Your task to perform on an android device: Open battery settings Image 0: 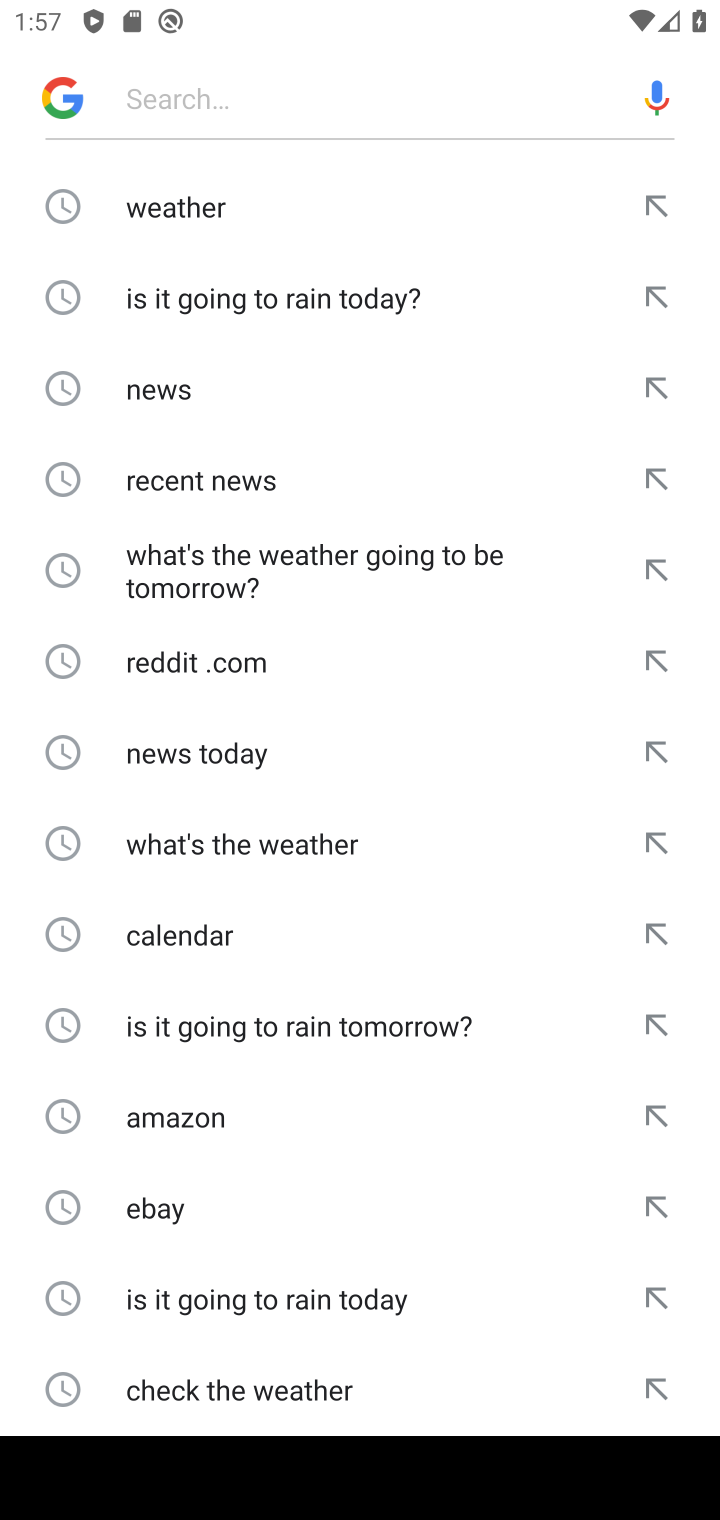
Step 0: press back button
Your task to perform on an android device: Open battery settings Image 1: 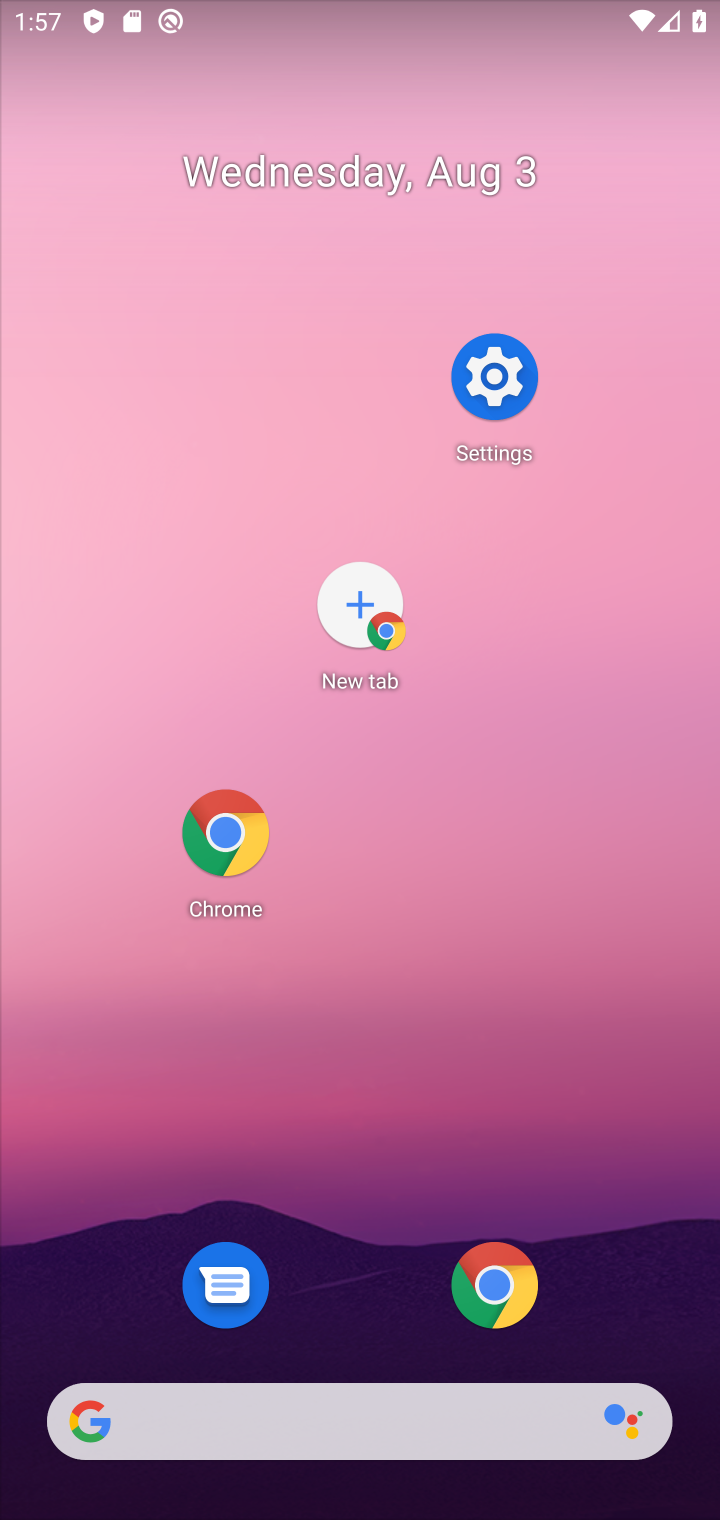
Step 1: drag from (265, 294) to (323, 137)
Your task to perform on an android device: Open battery settings Image 2: 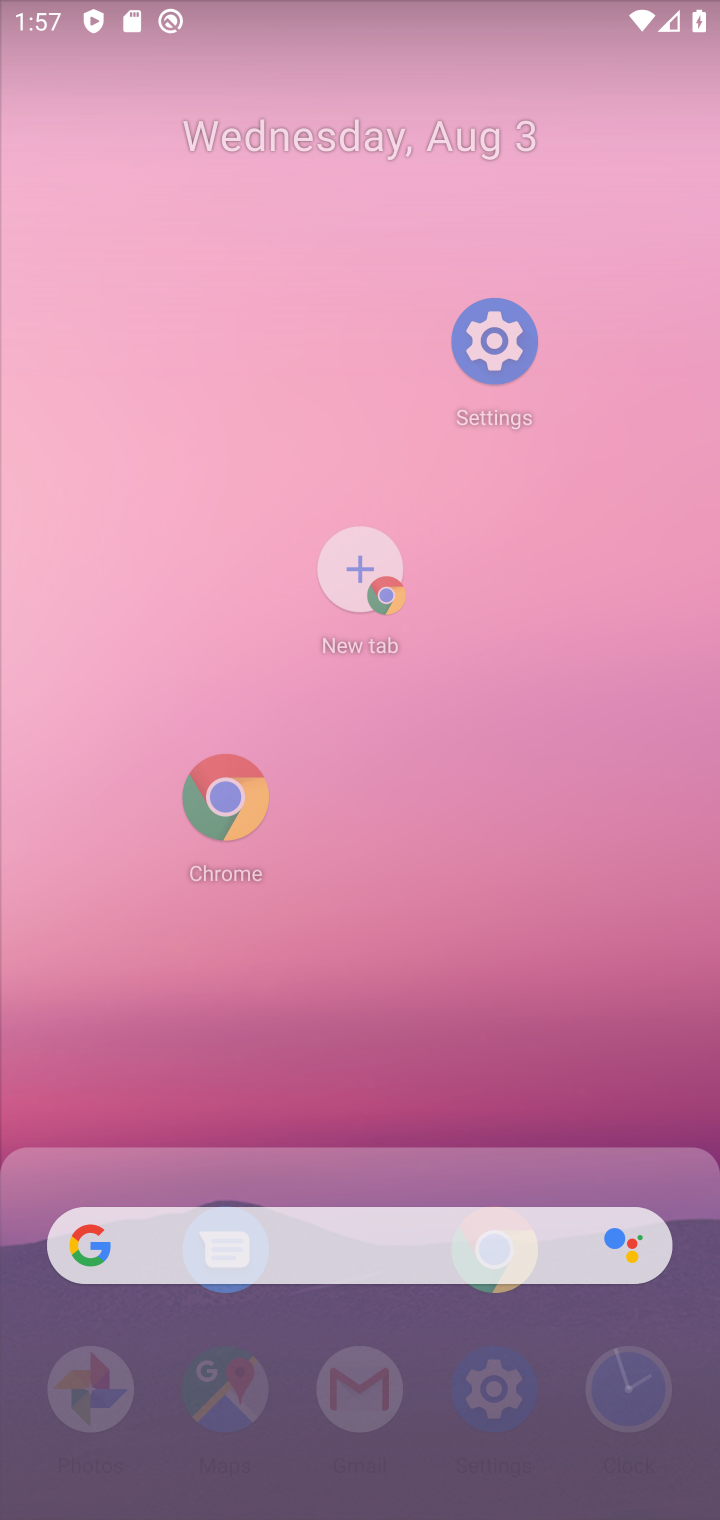
Step 2: drag from (221, 44) to (295, 19)
Your task to perform on an android device: Open battery settings Image 3: 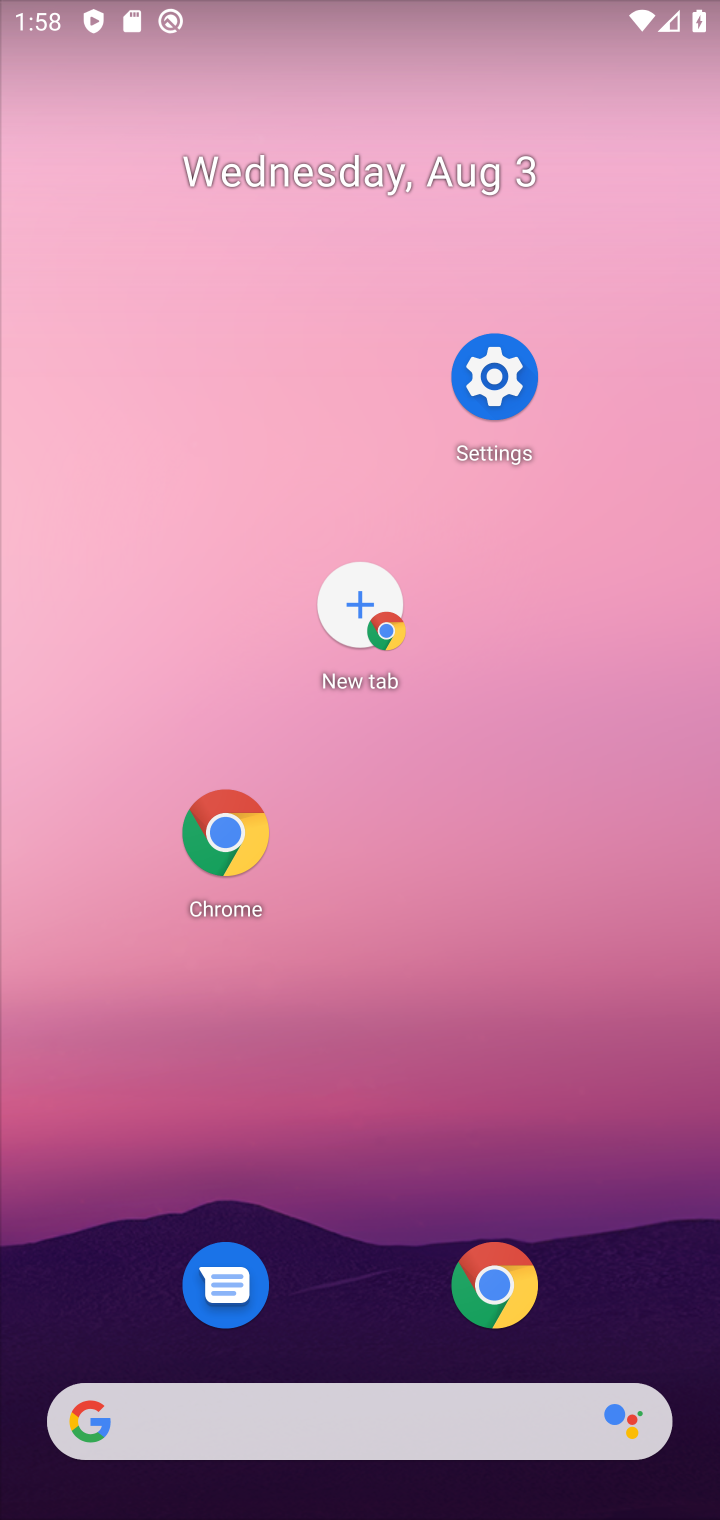
Step 3: drag from (357, 161) to (187, 265)
Your task to perform on an android device: Open battery settings Image 4: 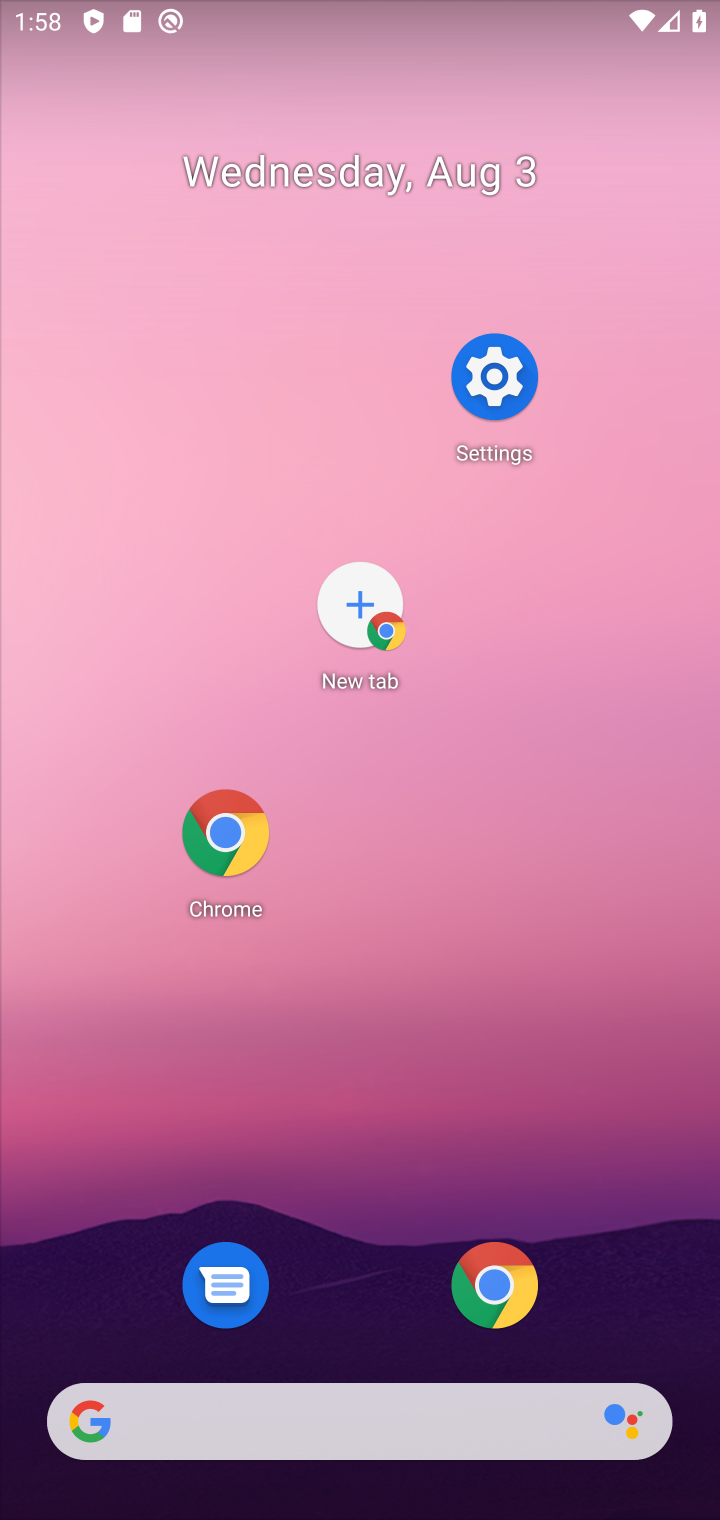
Step 4: drag from (263, 383) to (176, 87)
Your task to perform on an android device: Open battery settings Image 5: 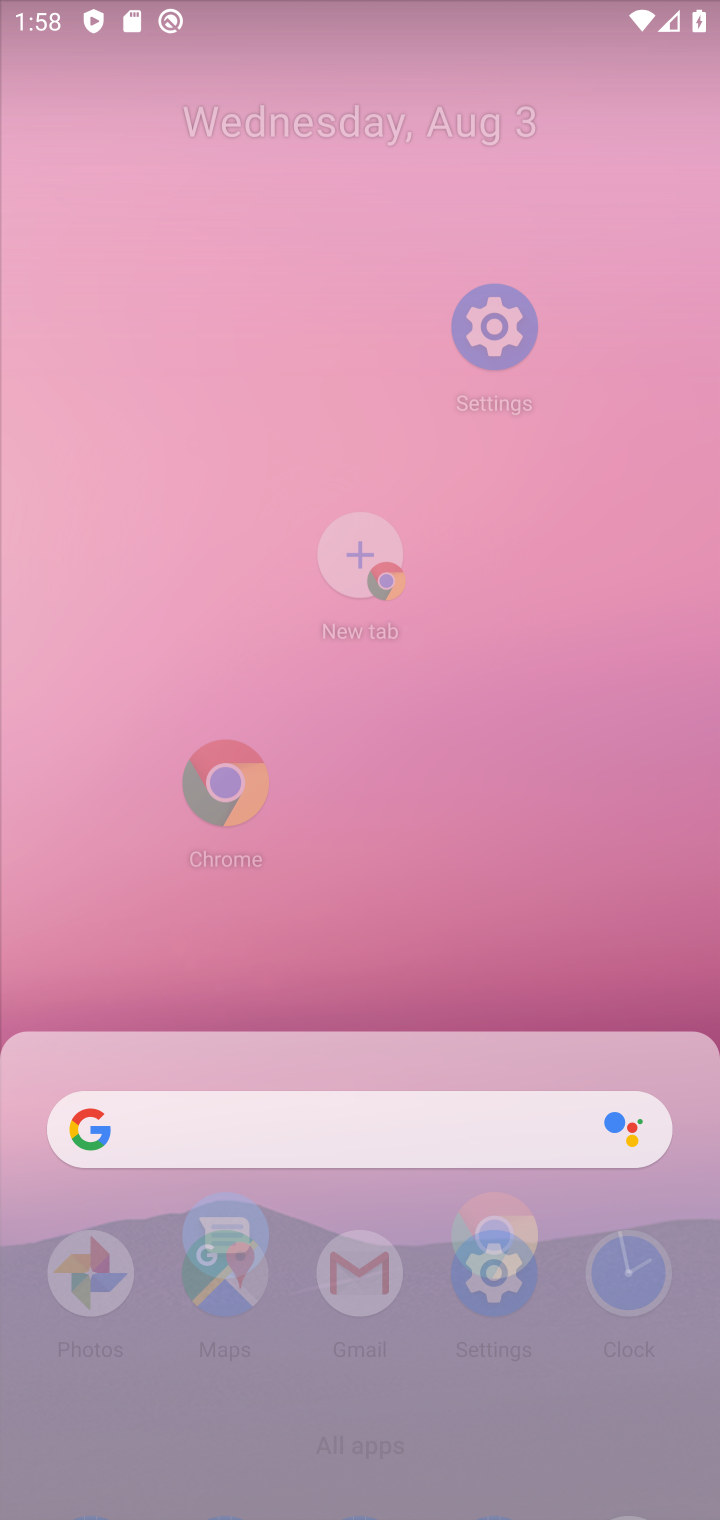
Step 5: click (260, 103)
Your task to perform on an android device: Open battery settings Image 6: 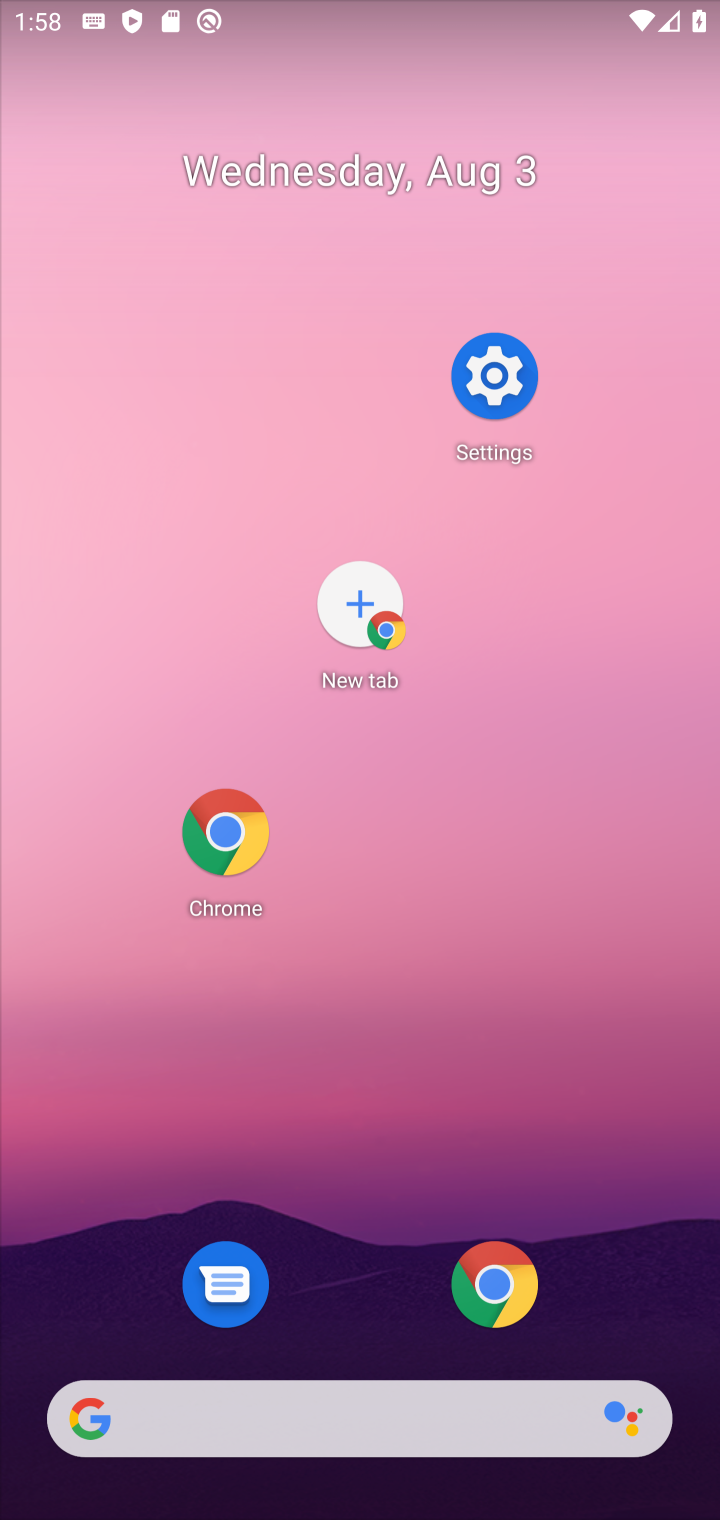
Step 6: drag from (383, 487) to (324, 142)
Your task to perform on an android device: Open battery settings Image 7: 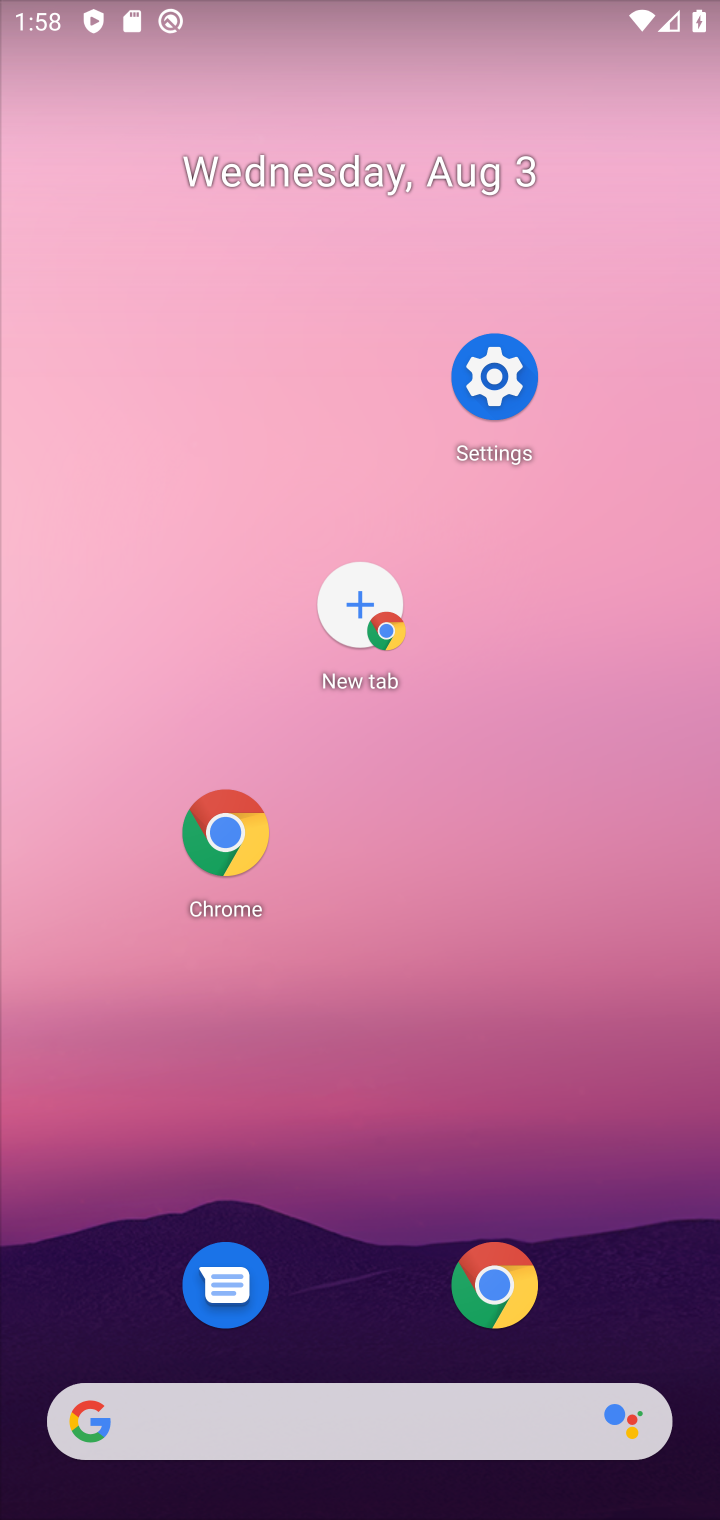
Step 7: click (286, 52)
Your task to perform on an android device: Open battery settings Image 8: 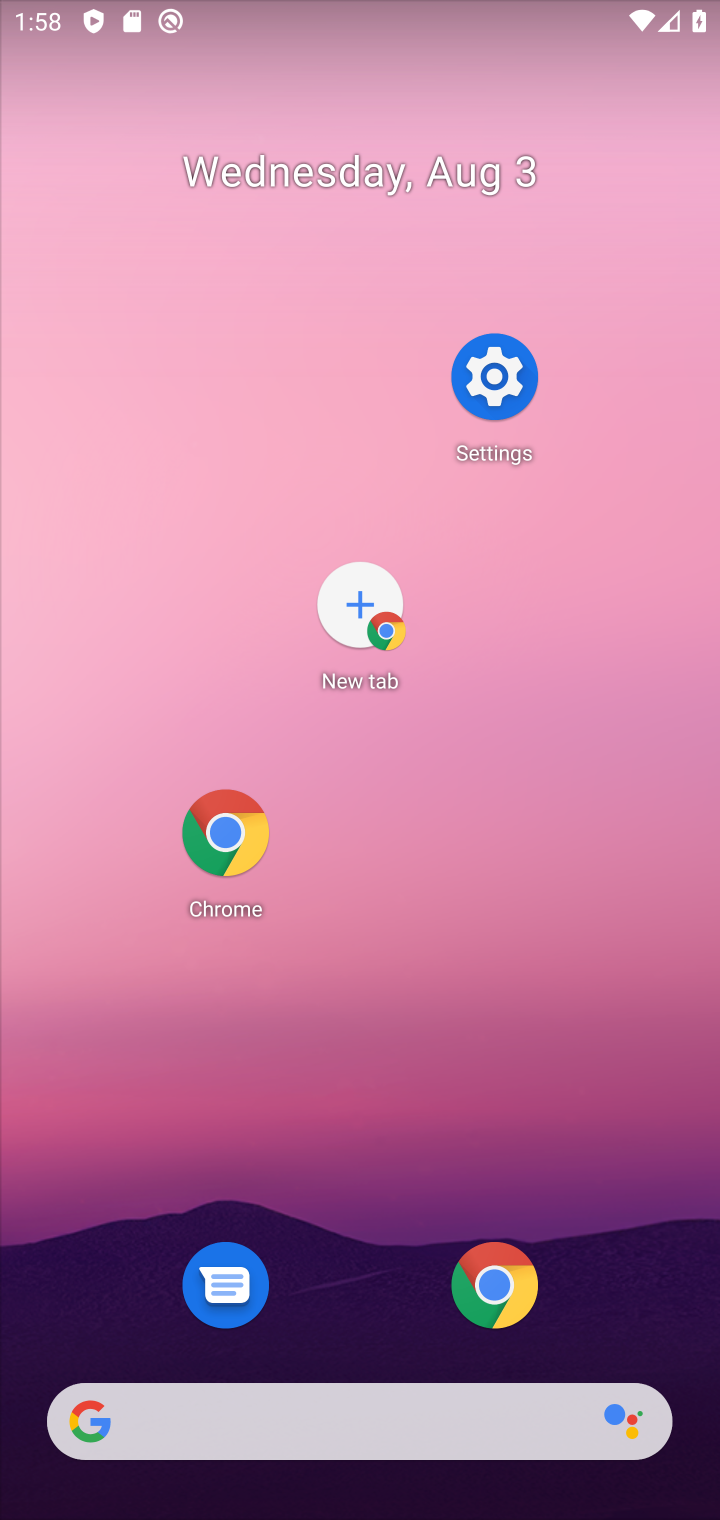
Step 8: drag from (363, 44) to (173, 33)
Your task to perform on an android device: Open battery settings Image 9: 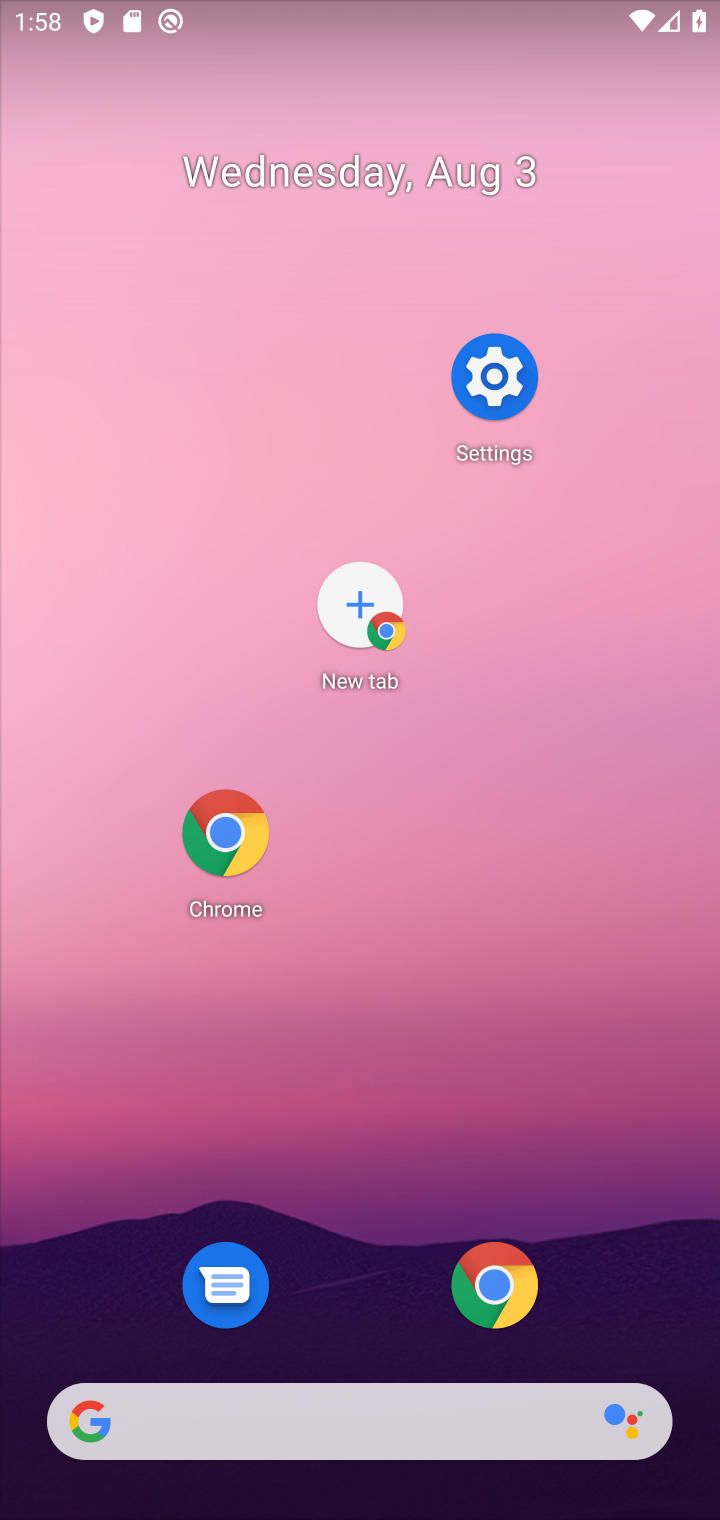
Step 9: drag from (274, 18) to (409, 114)
Your task to perform on an android device: Open battery settings Image 10: 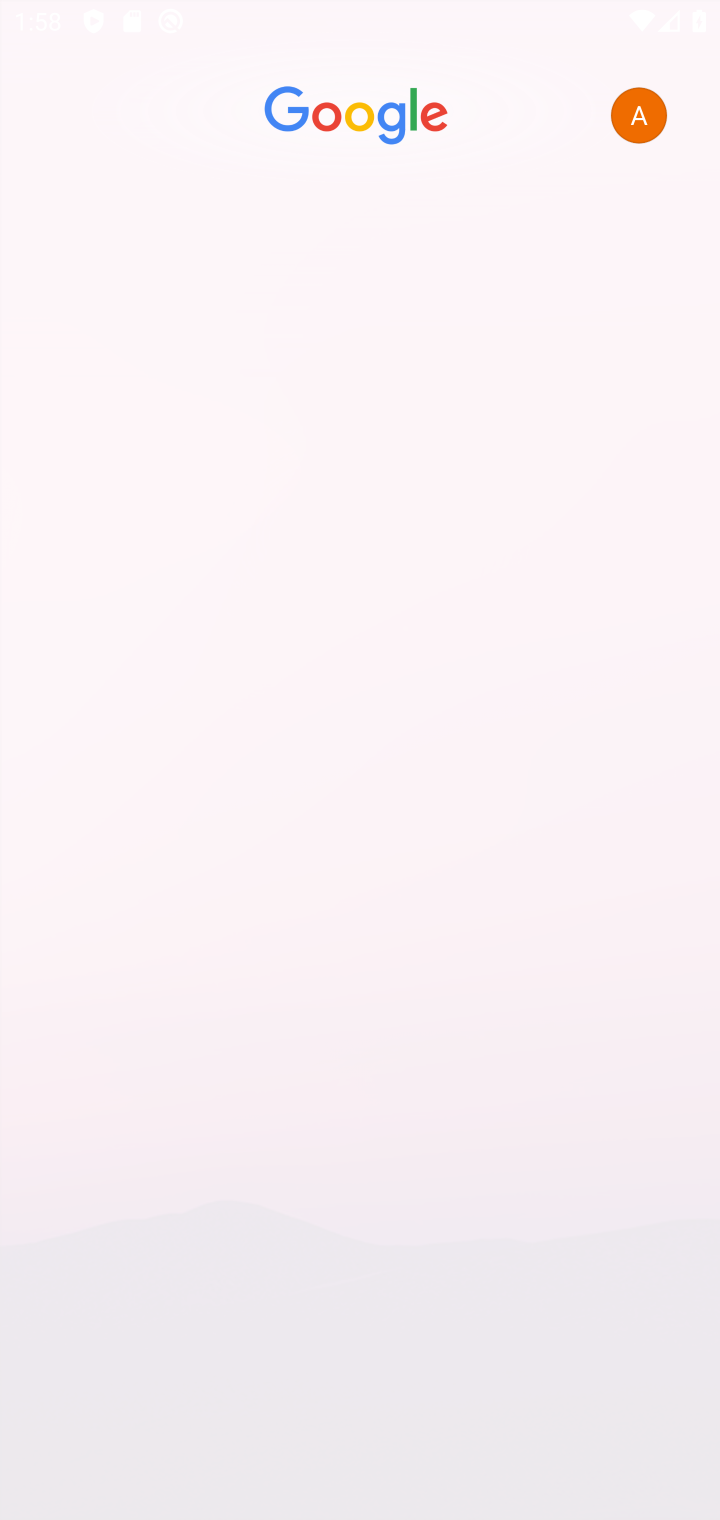
Step 10: drag from (473, 583) to (452, 413)
Your task to perform on an android device: Open battery settings Image 11: 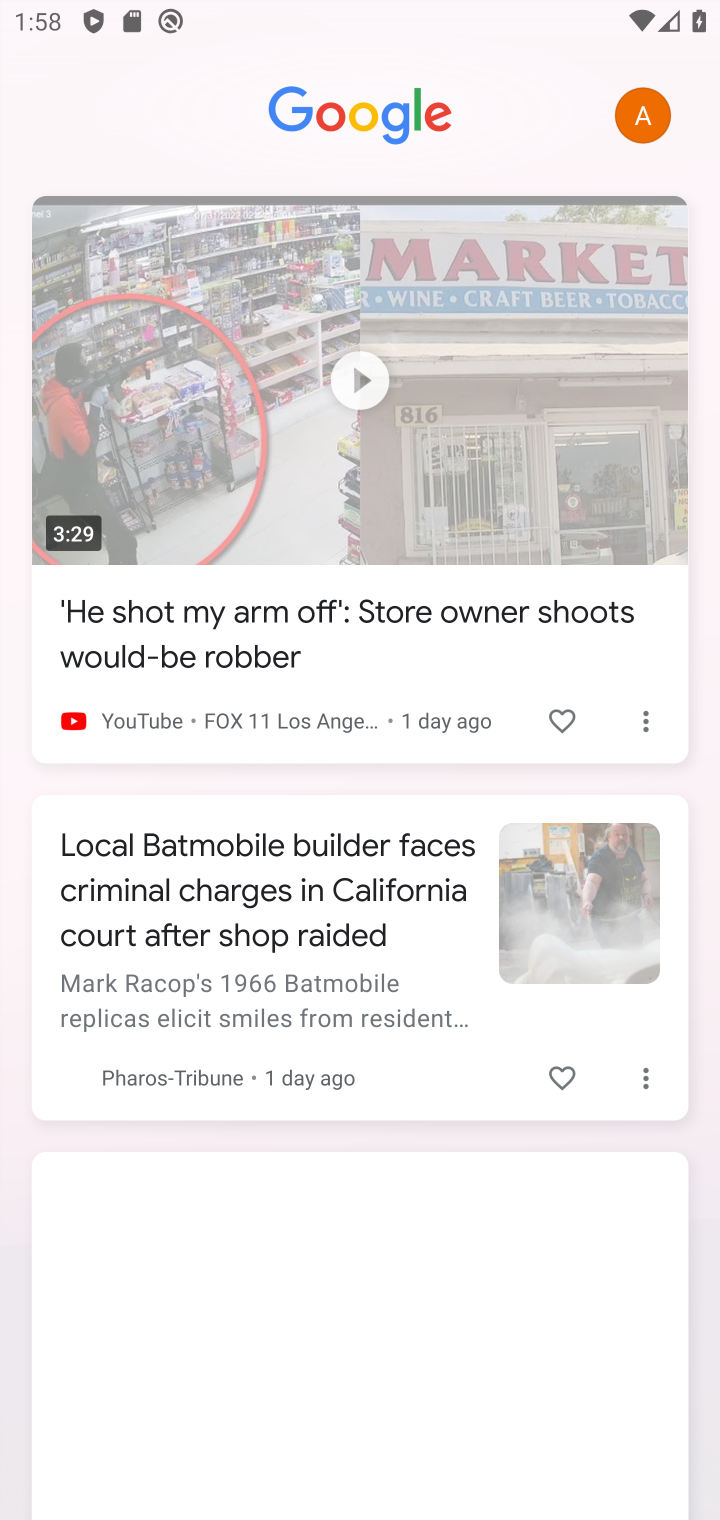
Step 11: drag from (84, 449) to (109, 134)
Your task to perform on an android device: Open battery settings Image 12: 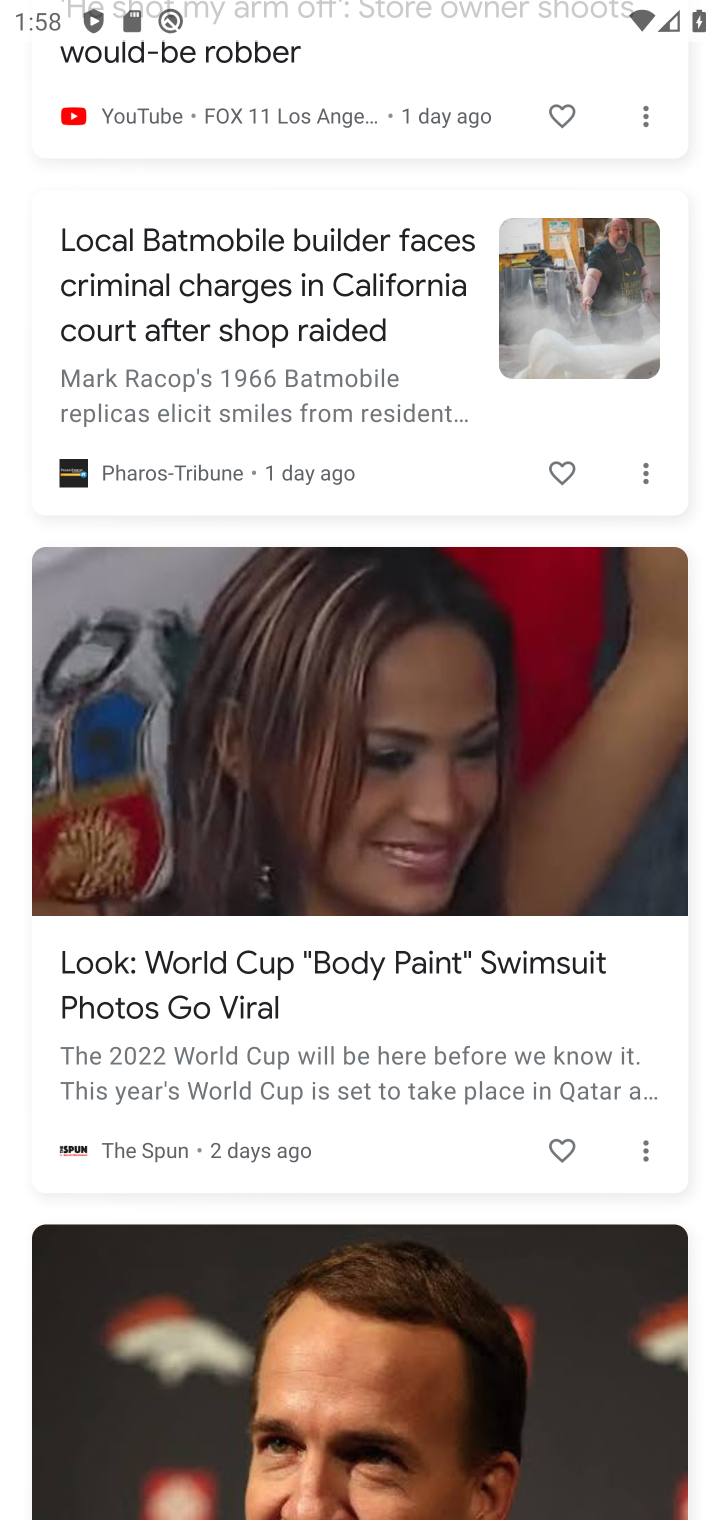
Step 12: press back button
Your task to perform on an android device: Open battery settings Image 13: 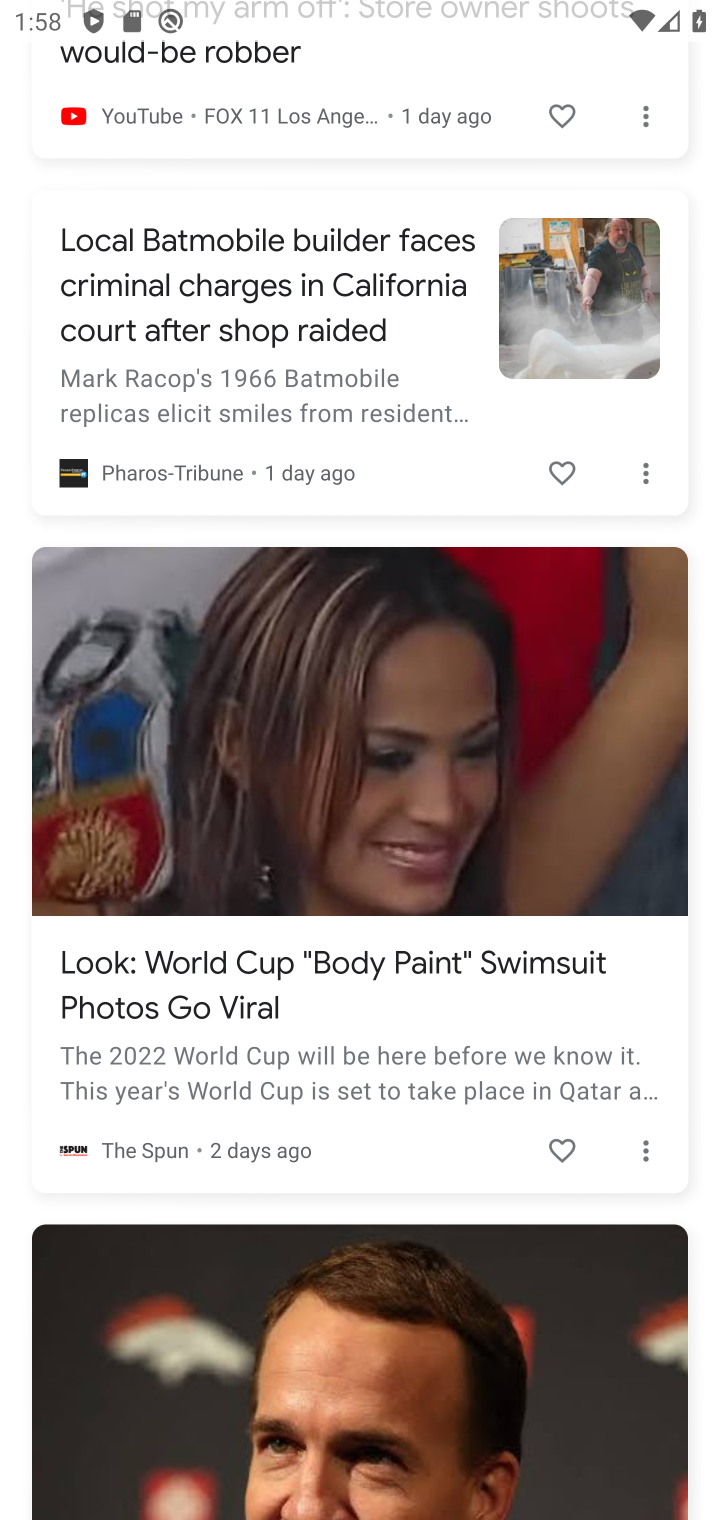
Step 13: press back button
Your task to perform on an android device: Open battery settings Image 14: 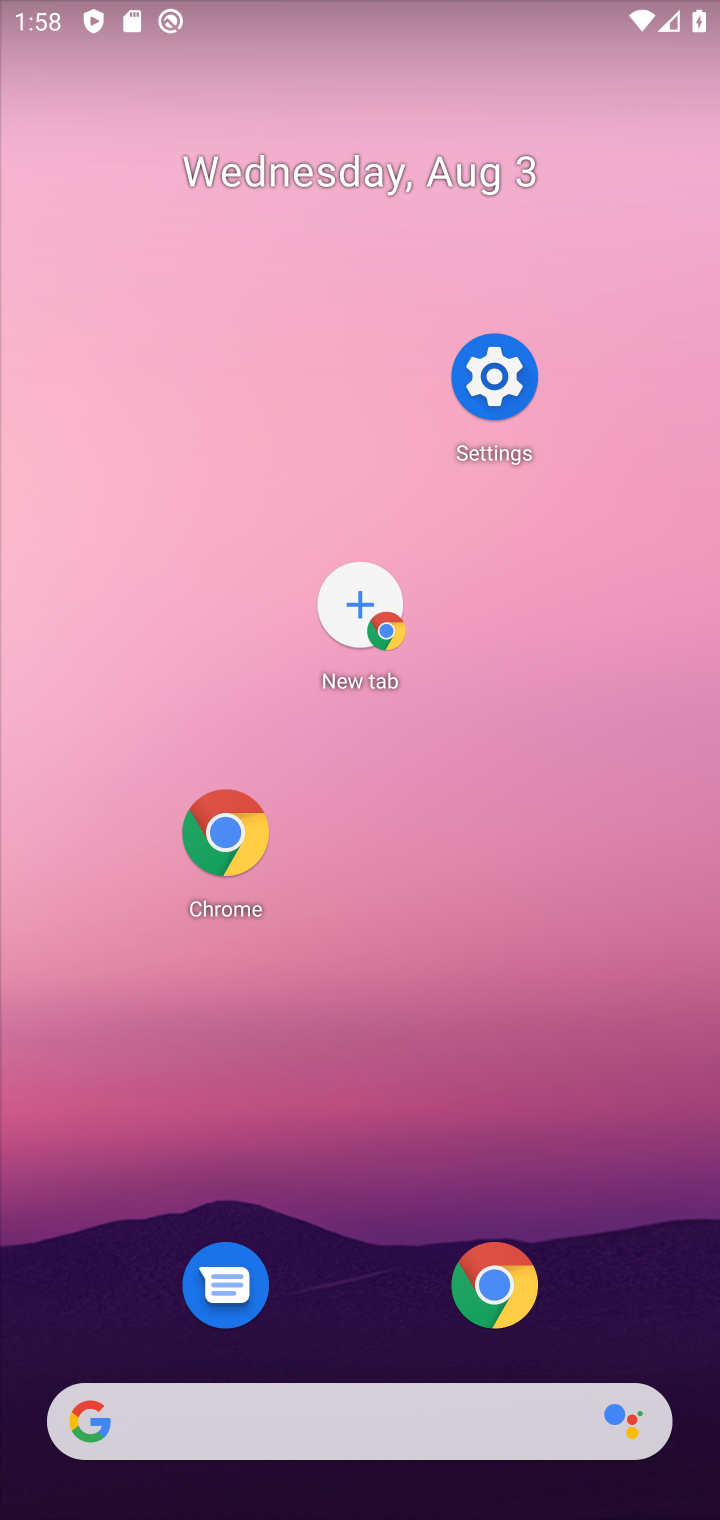
Step 14: press back button
Your task to perform on an android device: Open battery settings Image 15: 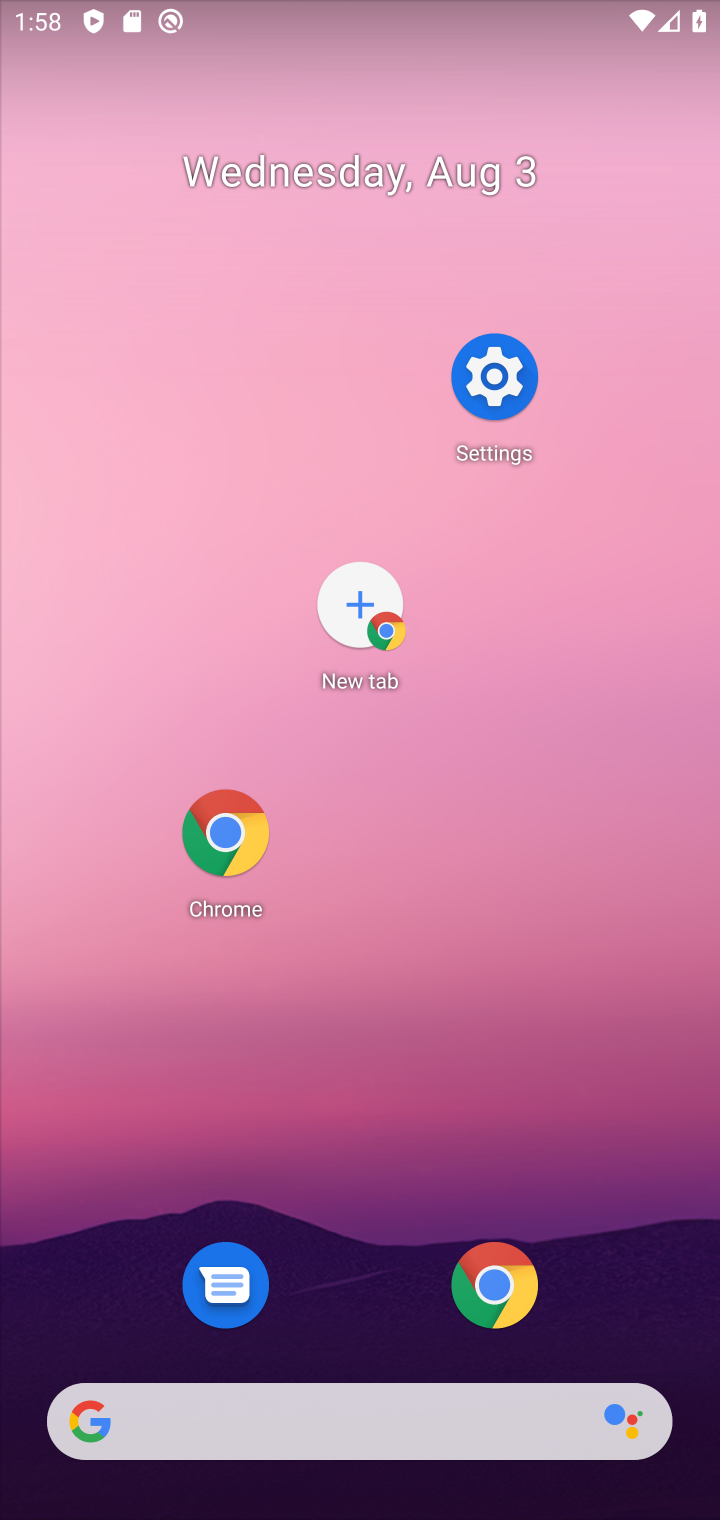
Step 15: drag from (372, 1293) to (267, 220)
Your task to perform on an android device: Open battery settings Image 16: 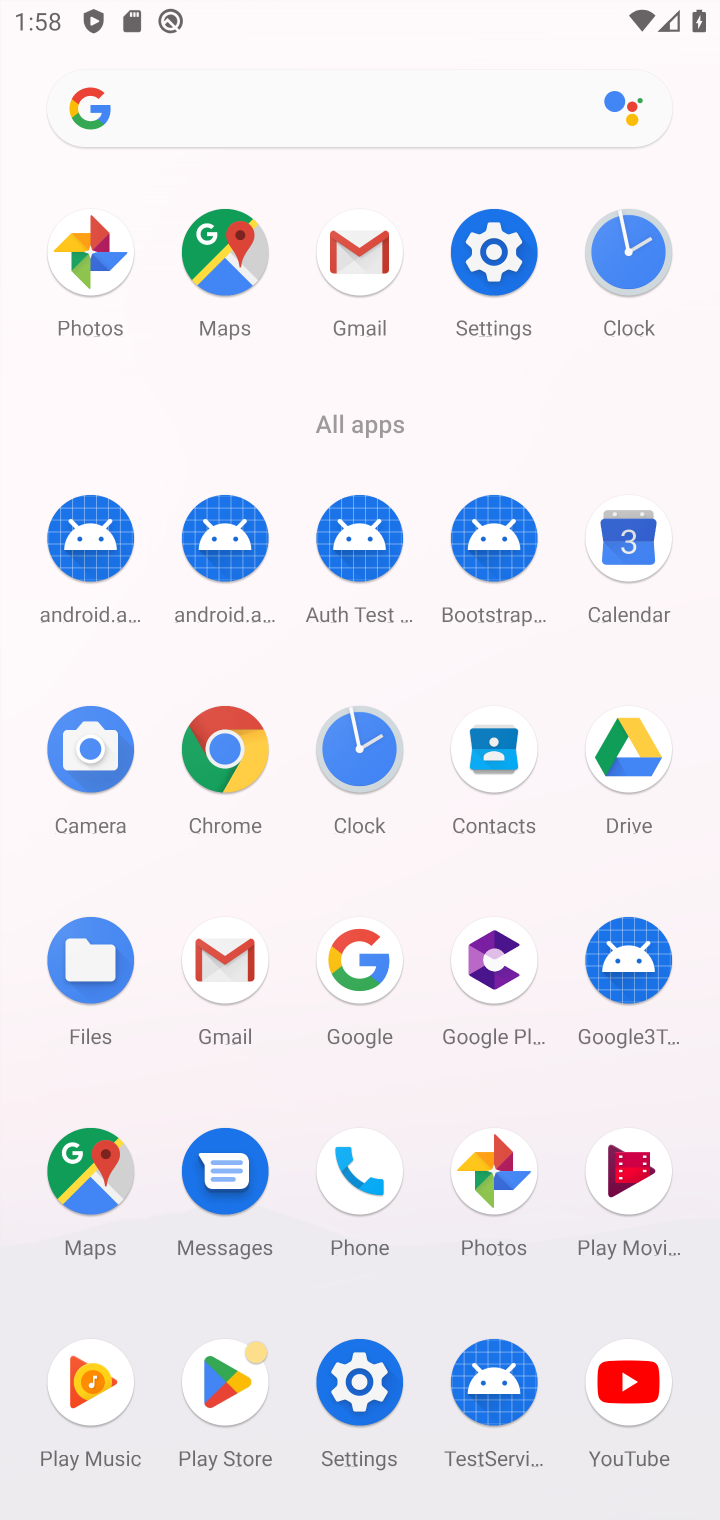
Step 16: click (497, 264)
Your task to perform on an android device: Open battery settings Image 17: 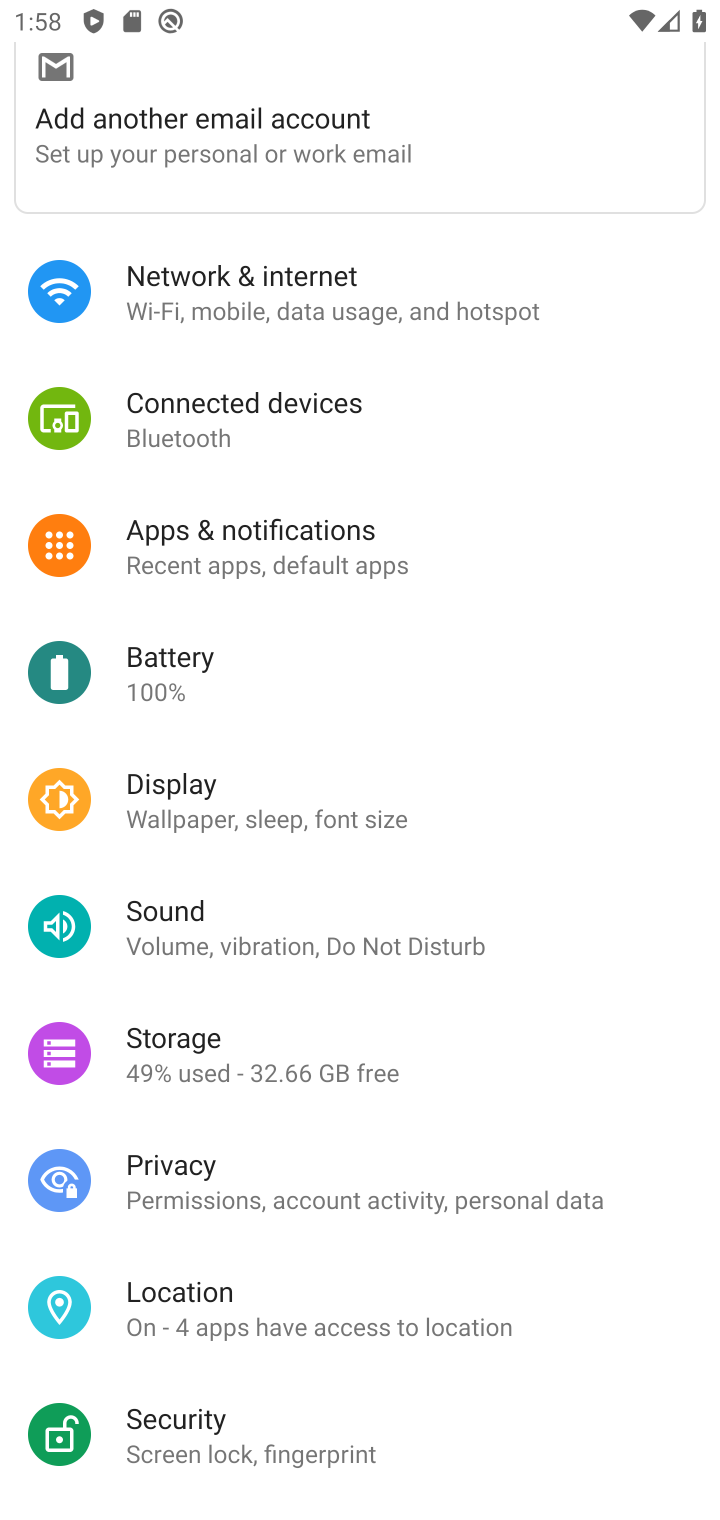
Step 17: drag from (229, 410) to (279, 963)
Your task to perform on an android device: Open battery settings Image 18: 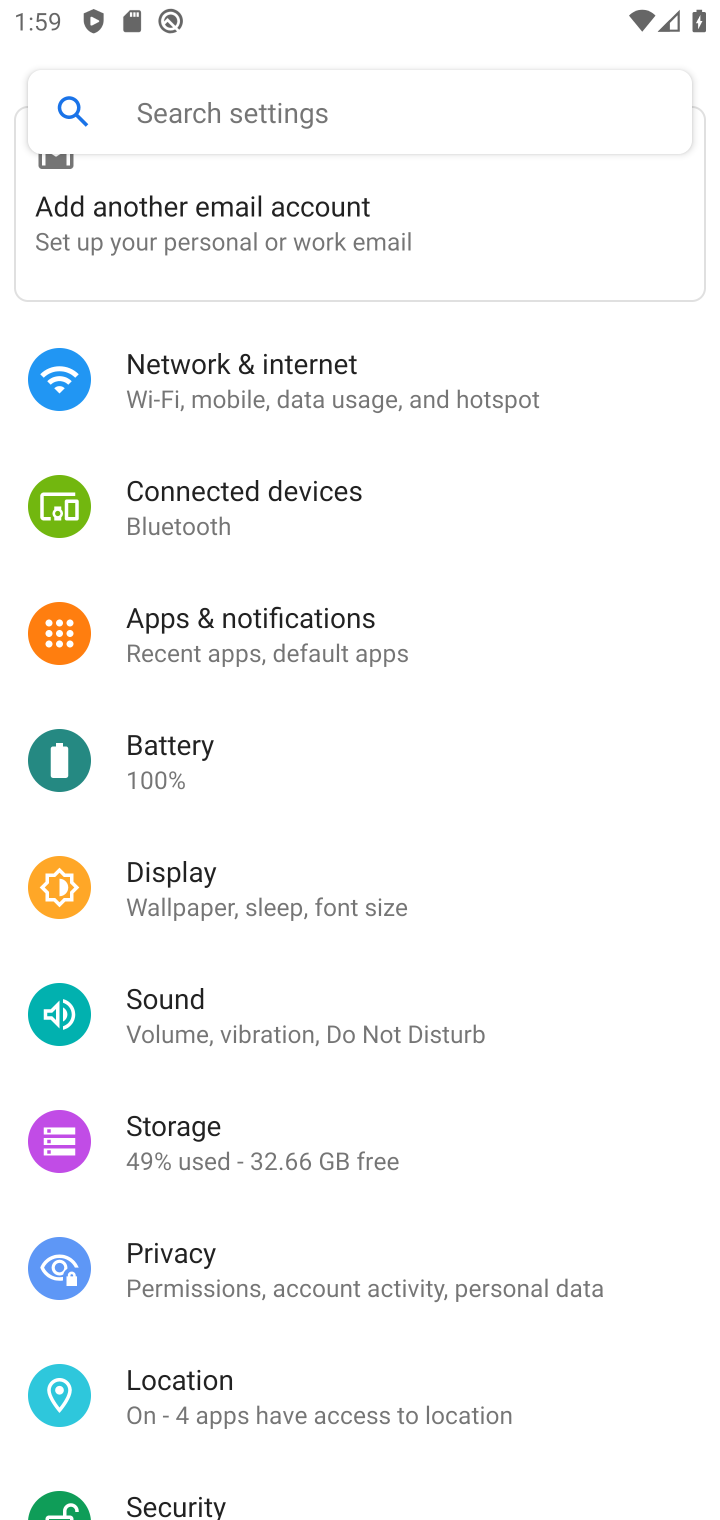
Step 18: click (174, 768)
Your task to perform on an android device: Open battery settings Image 19: 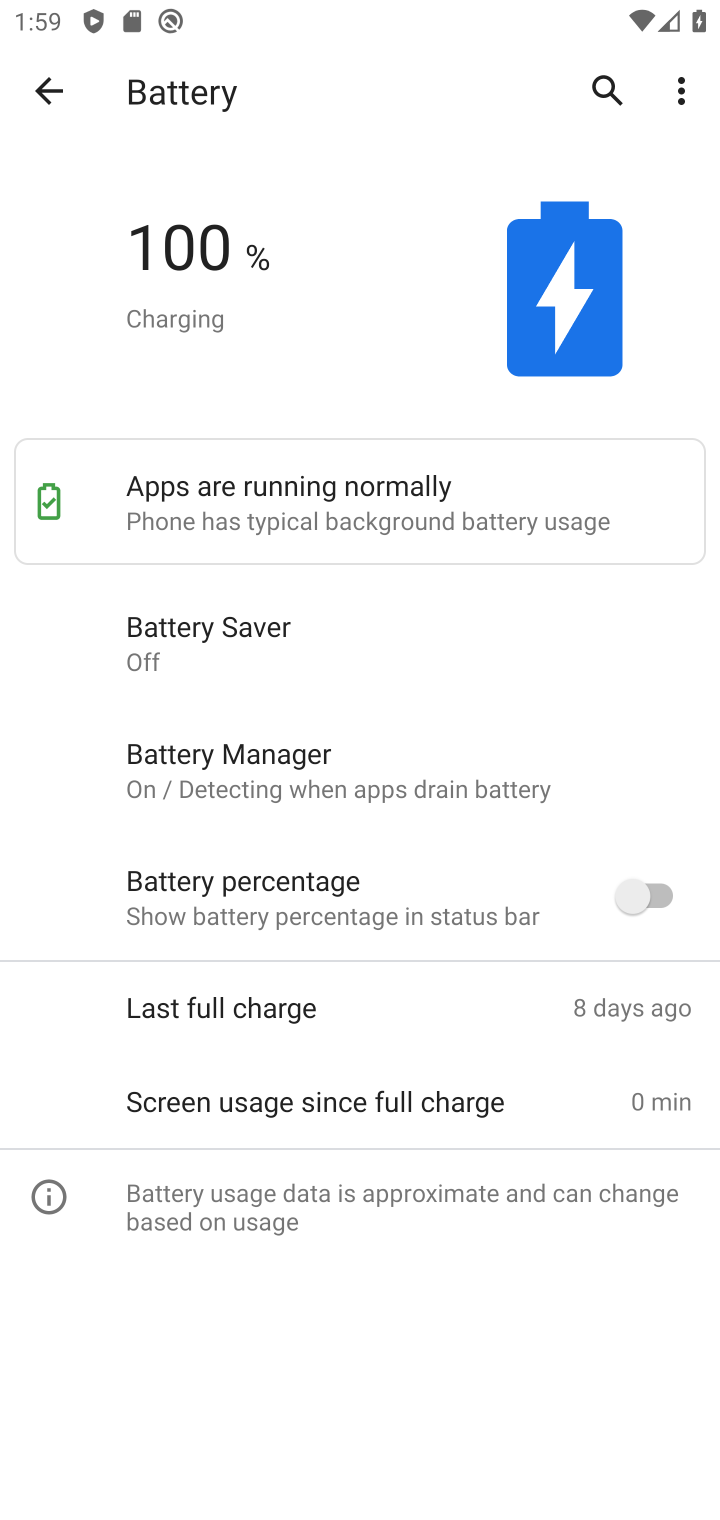
Step 19: drag from (352, 1173) to (243, 354)
Your task to perform on an android device: Open battery settings Image 20: 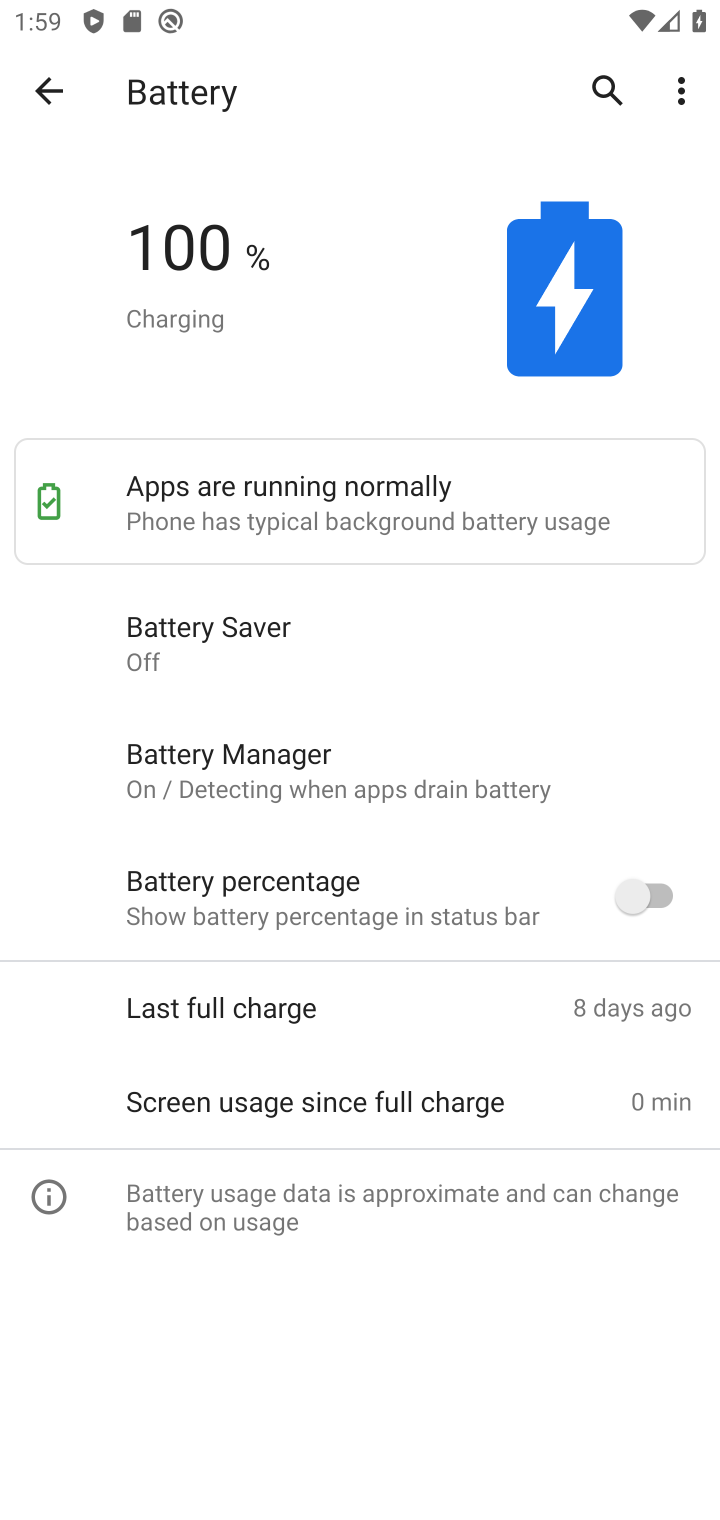
Step 20: click (246, 476)
Your task to perform on an android device: Open battery settings Image 21: 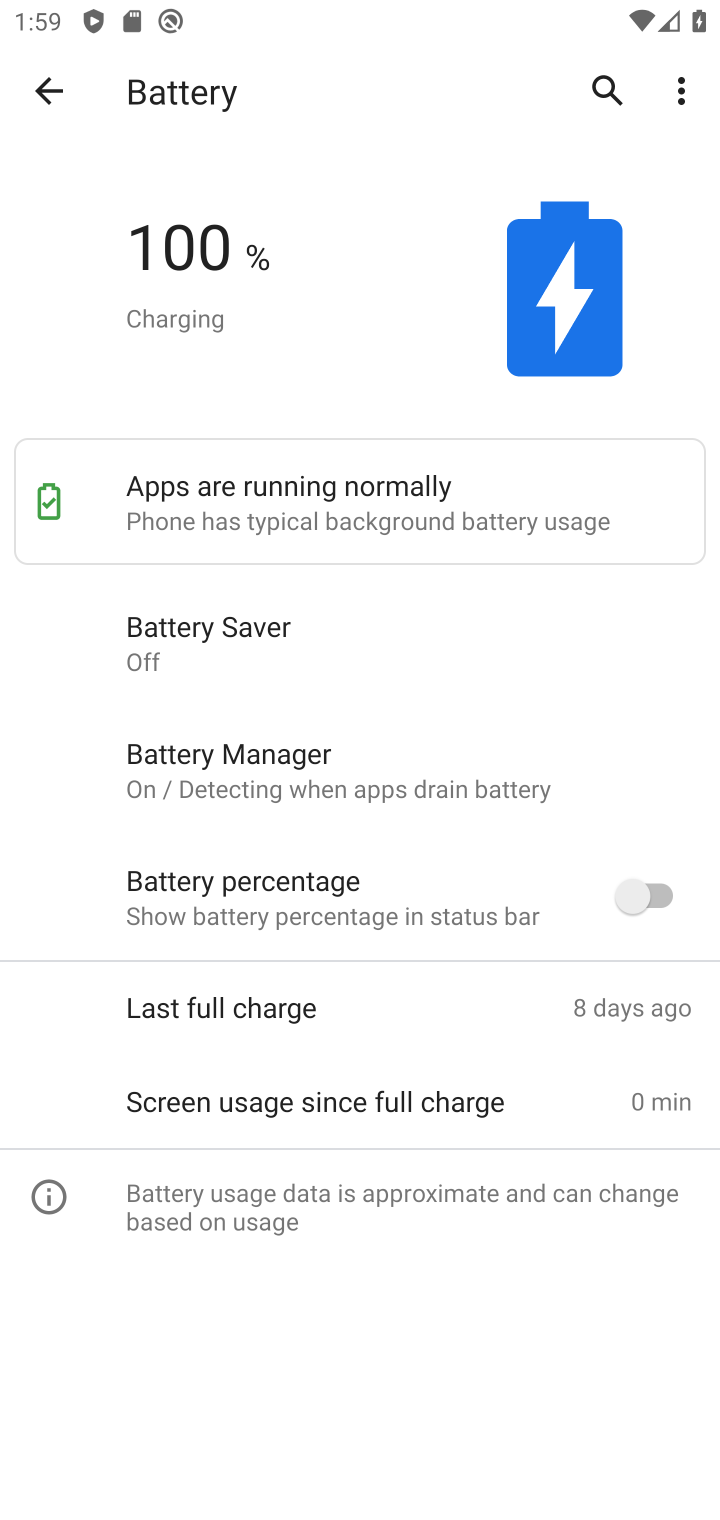
Step 21: click (133, 511)
Your task to perform on an android device: Open battery settings Image 22: 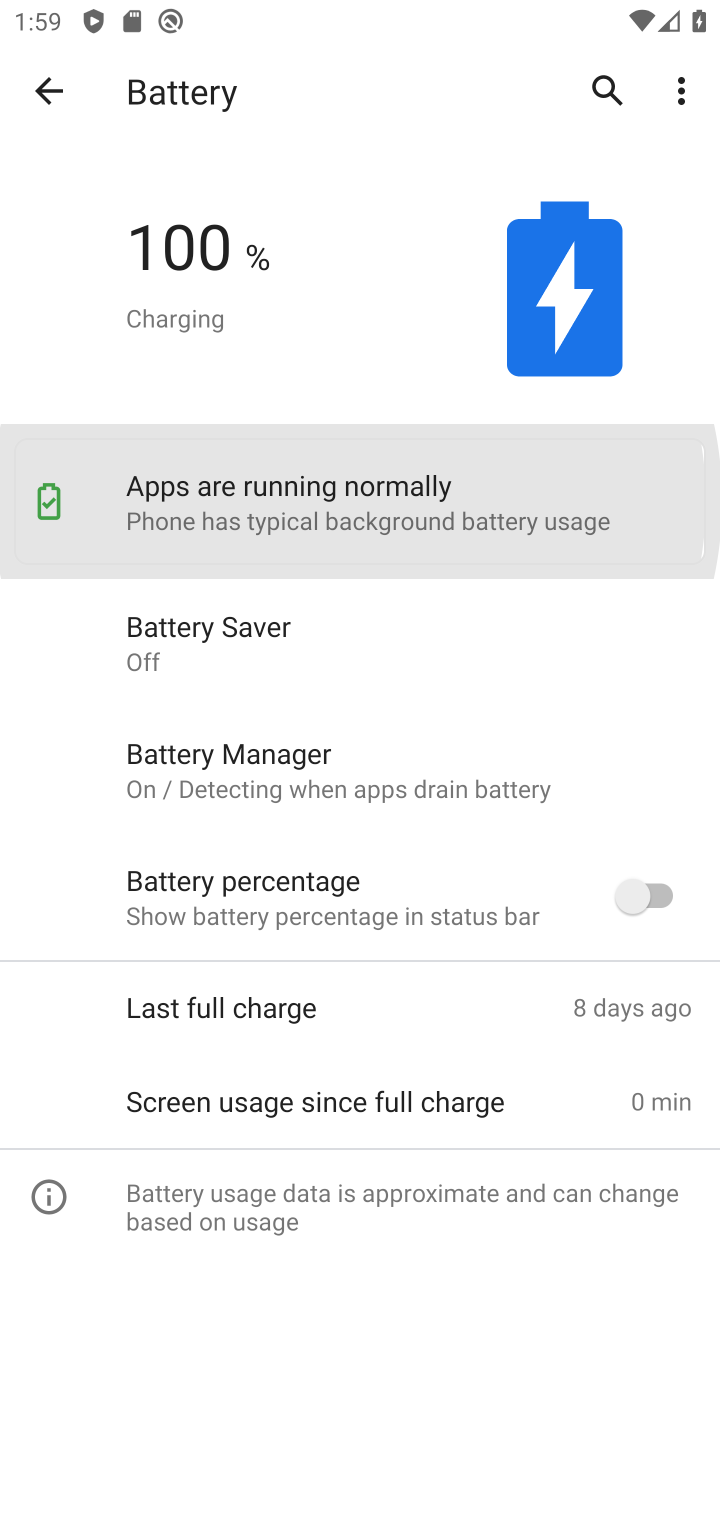
Step 22: drag from (190, 932) to (96, 403)
Your task to perform on an android device: Open battery settings Image 23: 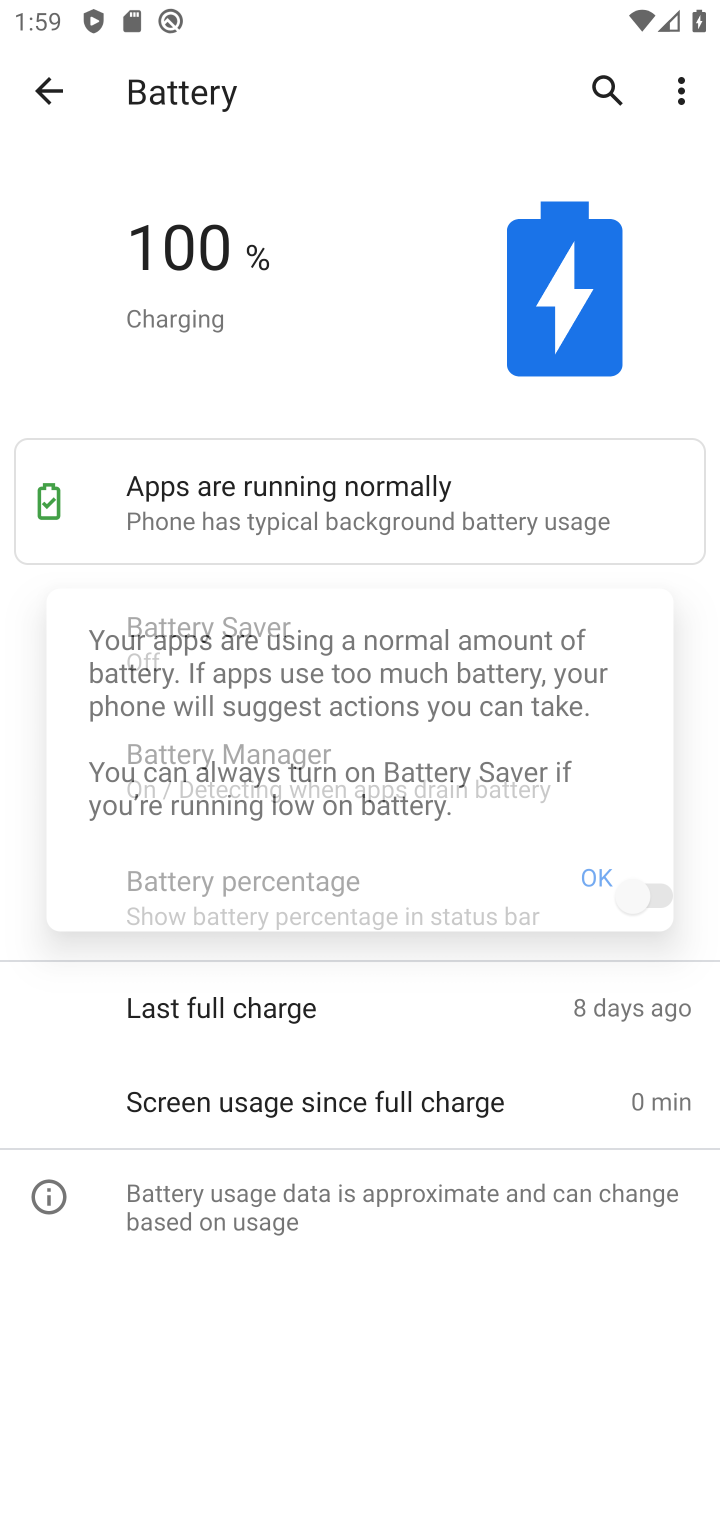
Step 23: drag from (349, 655) to (349, 435)
Your task to perform on an android device: Open battery settings Image 24: 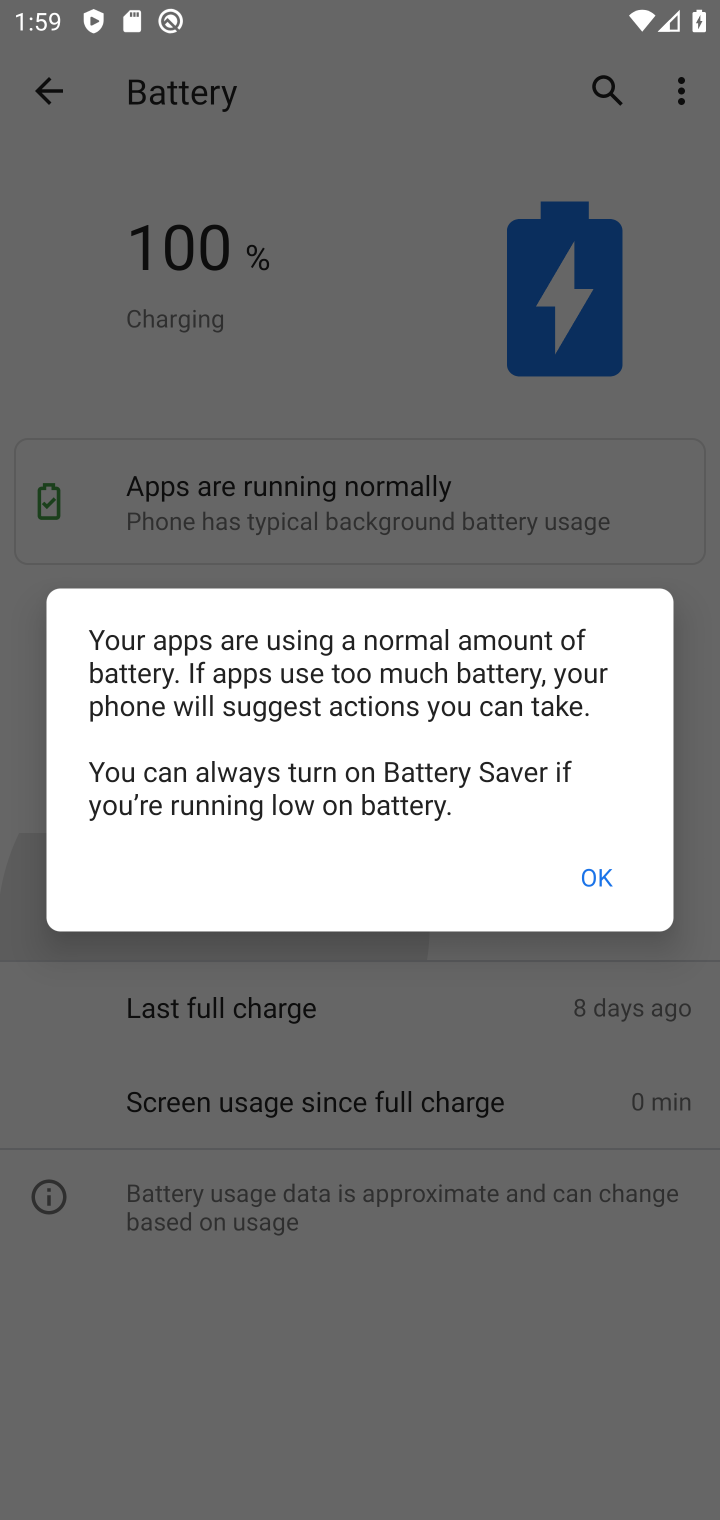
Step 24: drag from (380, 723) to (318, 368)
Your task to perform on an android device: Open battery settings Image 25: 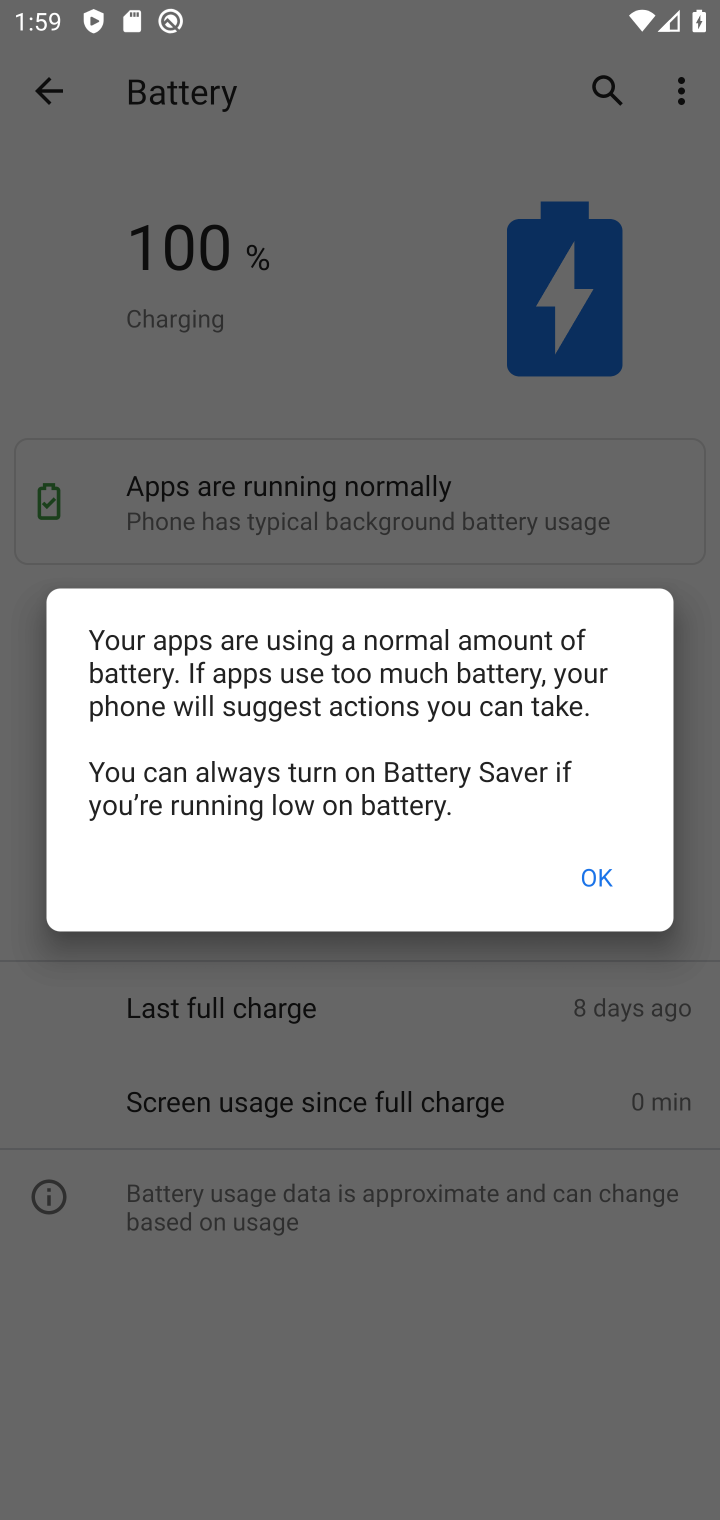
Step 25: click (600, 865)
Your task to perform on an android device: Open battery settings Image 26: 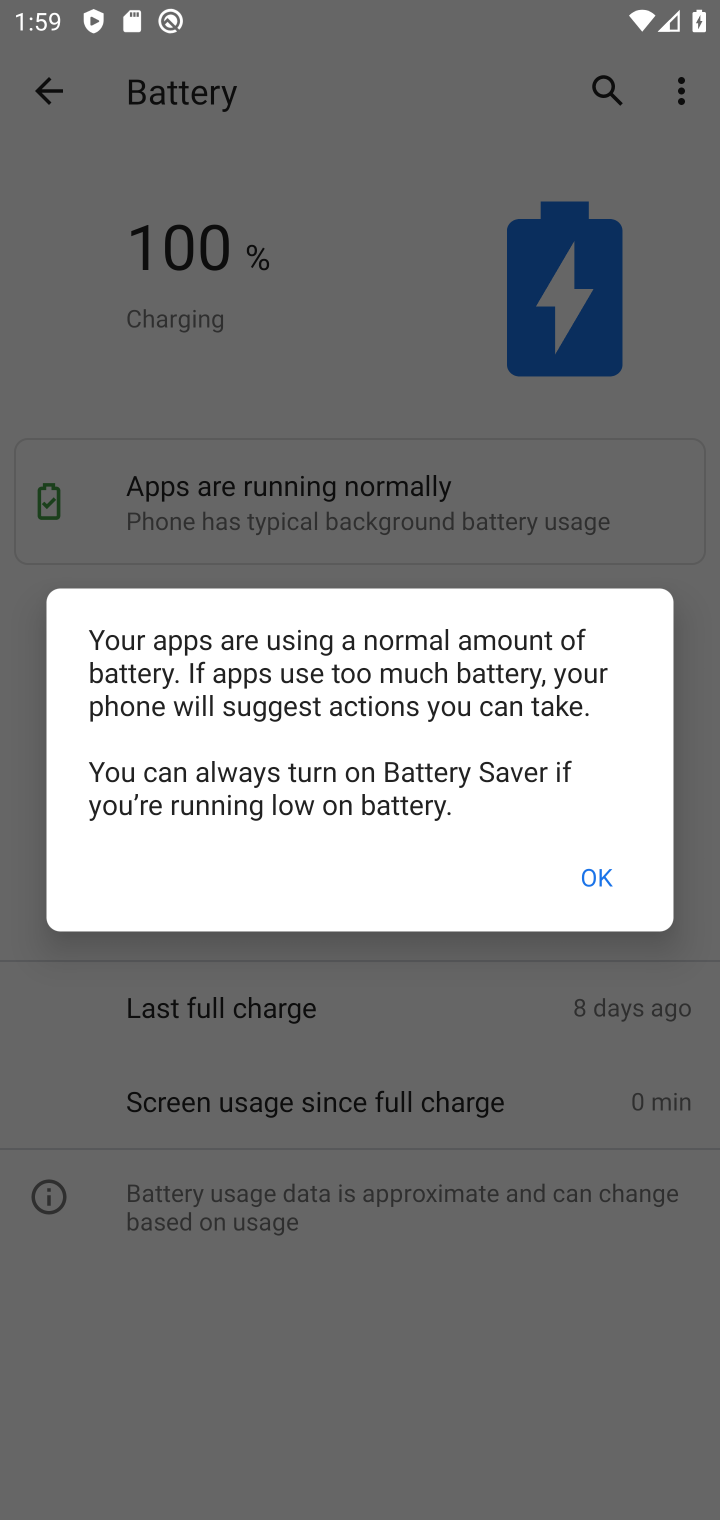
Step 26: click (589, 873)
Your task to perform on an android device: Open battery settings Image 27: 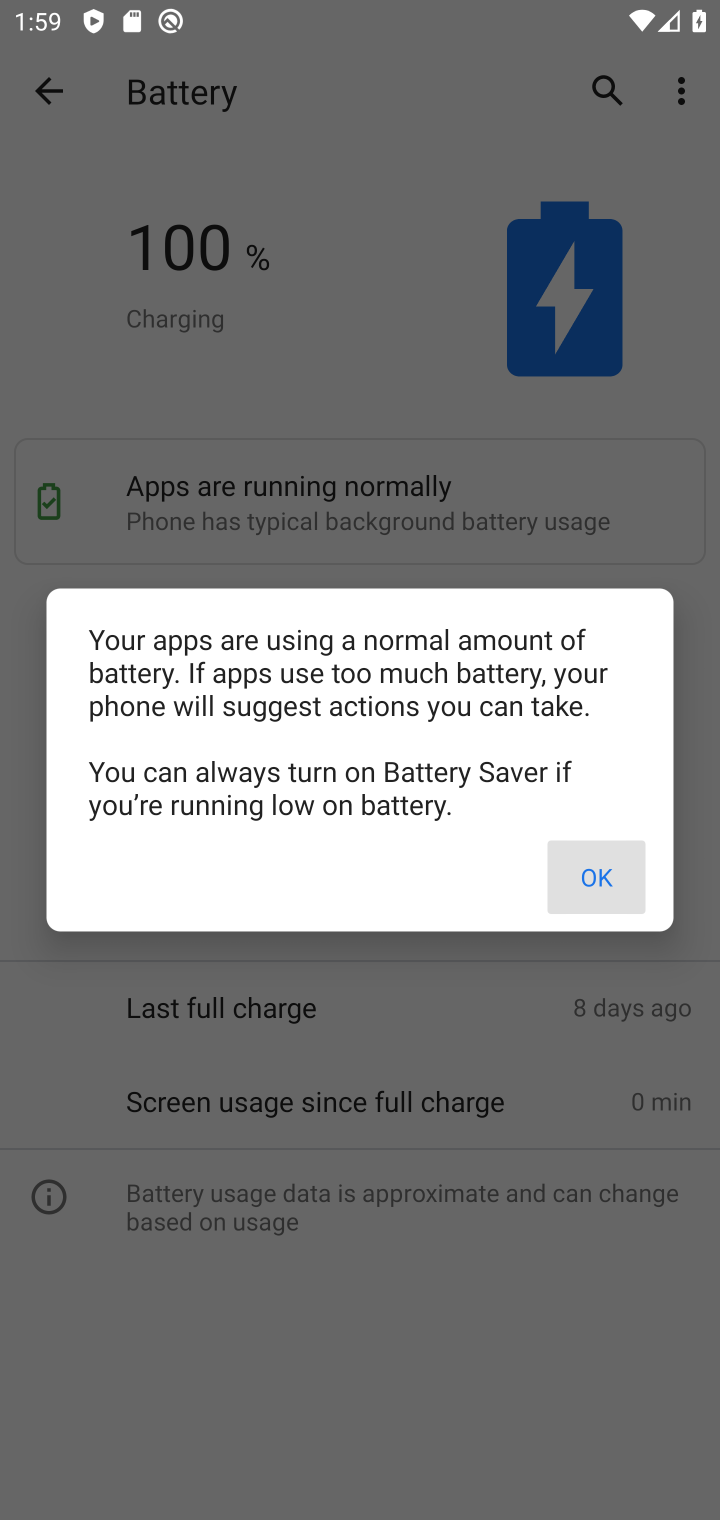
Step 27: click (598, 873)
Your task to perform on an android device: Open battery settings Image 28: 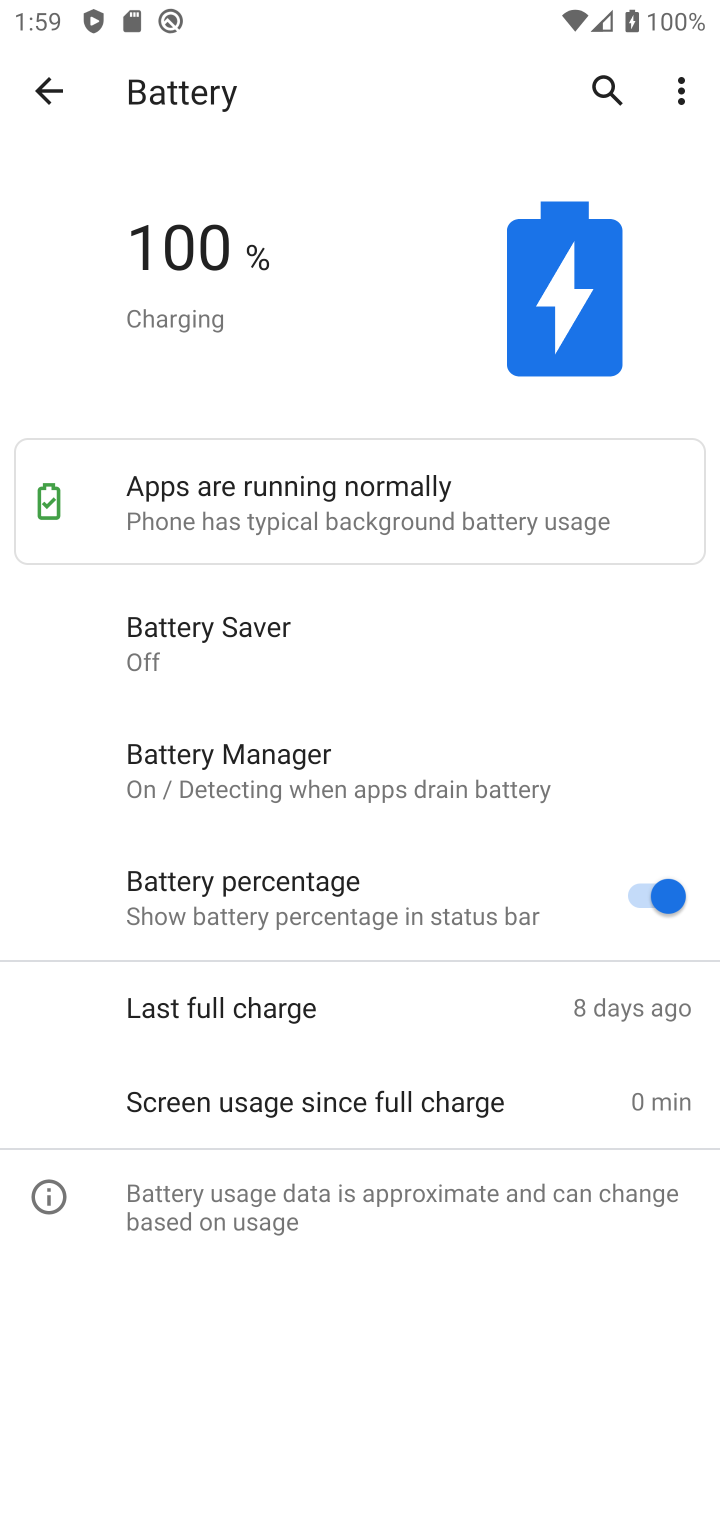
Step 28: task complete